Your task to perform on an android device: see creations saved in the google photos Image 0: 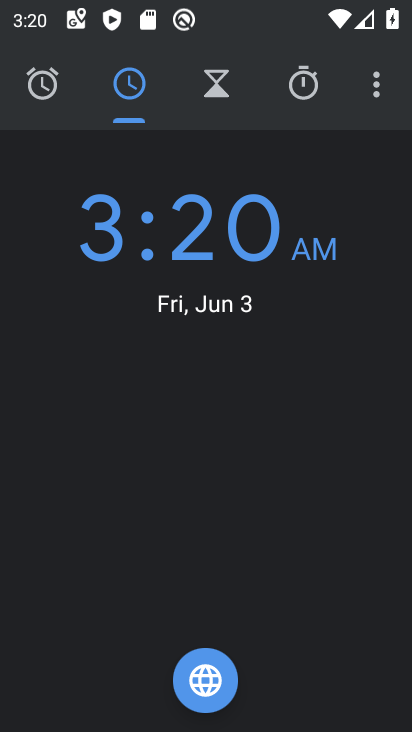
Step 0: press home button
Your task to perform on an android device: see creations saved in the google photos Image 1: 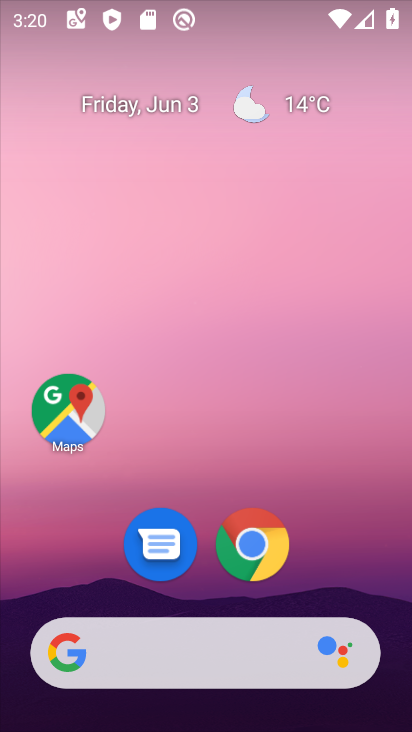
Step 1: drag from (390, 636) to (323, 59)
Your task to perform on an android device: see creations saved in the google photos Image 2: 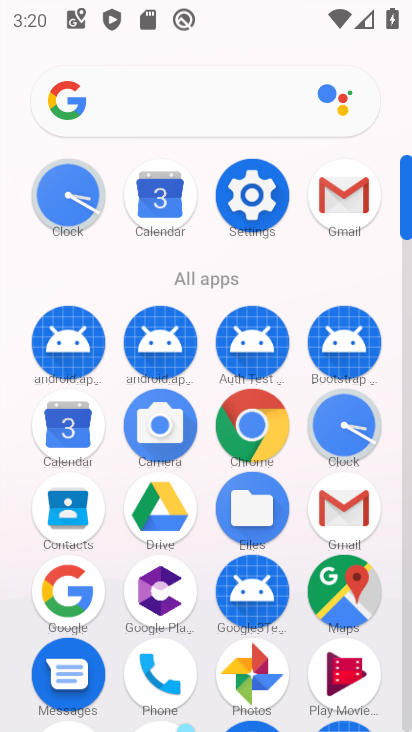
Step 2: click (406, 661)
Your task to perform on an android device: see creations saved in the google photos Image 3: 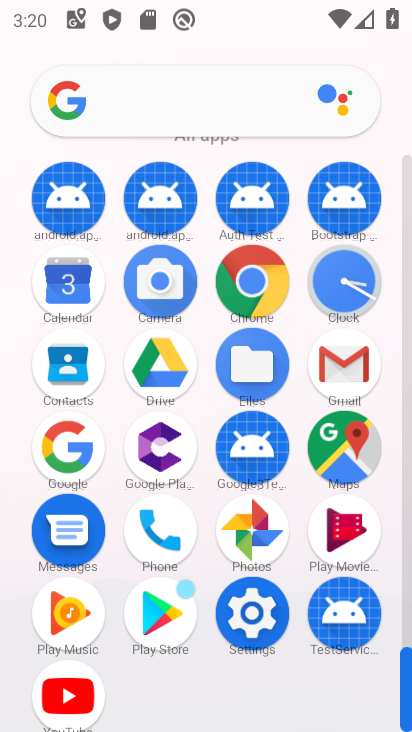
Step 3: click (253, 531)
Your task to perform on an android device: see creations saved in the google photos Image 4: 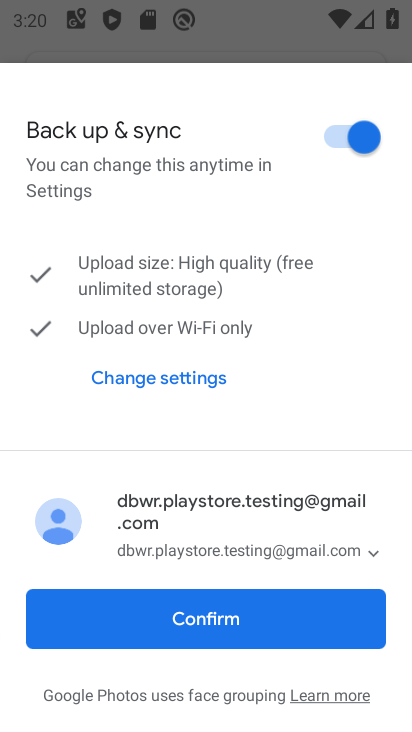
Step 4: click (205, 619)
Your task to perform on an android device: see creations saved in the google photos Image 5: 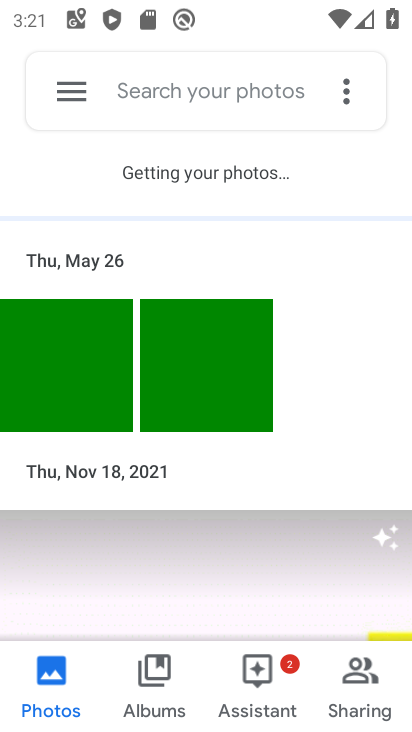
Step 5: task complete